Your task to perform on an android device: Search for sushi restaurants on Maps Image 0: 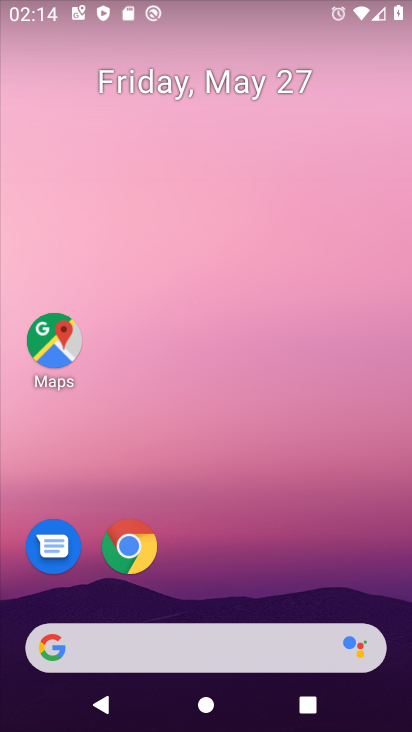
Step 0: drag from (236, 670) to (314, 15)
Your task to perform on an android device: Search for sushi restaurants on Maps Image 1: 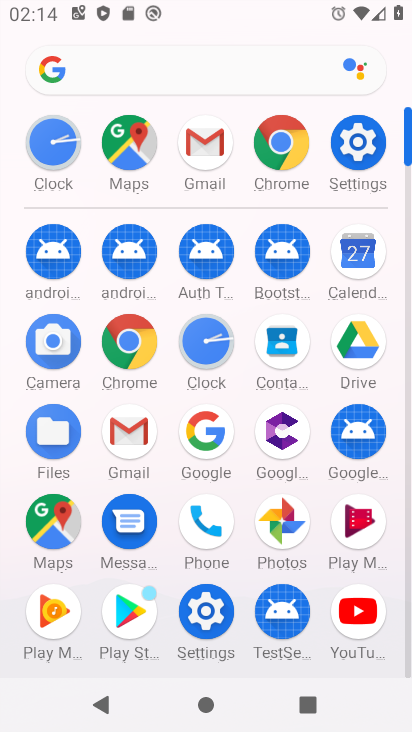
Step 1: click (132, 131)
Your task to perform on an android device: Search for sushi restaurants on Maps Image 2: 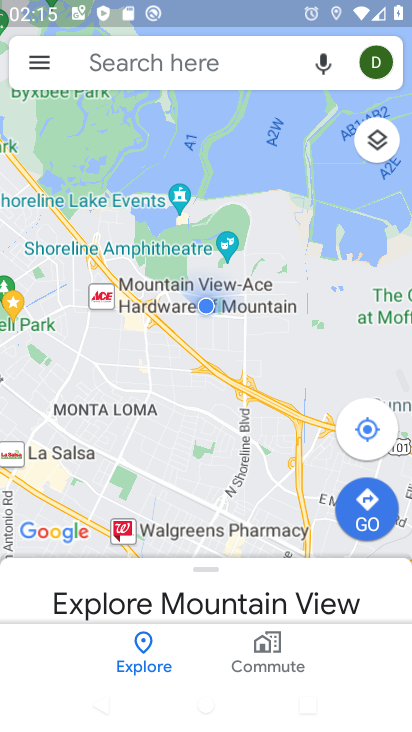
Step 2: click (115, 58)
Your task to perform on an android device: Search for sushi restaurants on Maps Image 3: 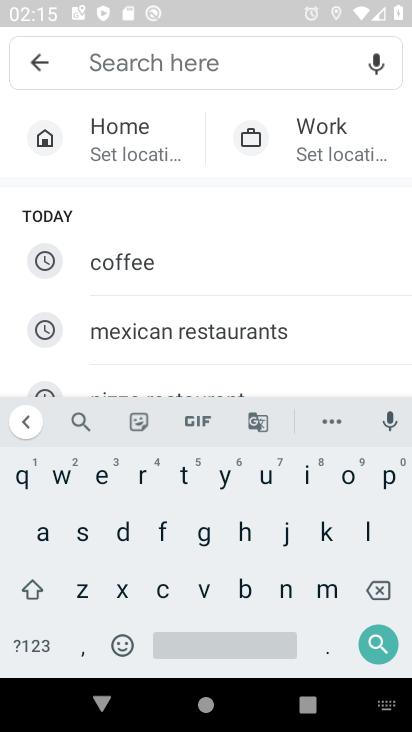
Step 3: click (80, 542)
Your task to perform on an android device: Search for sushi restaurants on Maps Image 4: 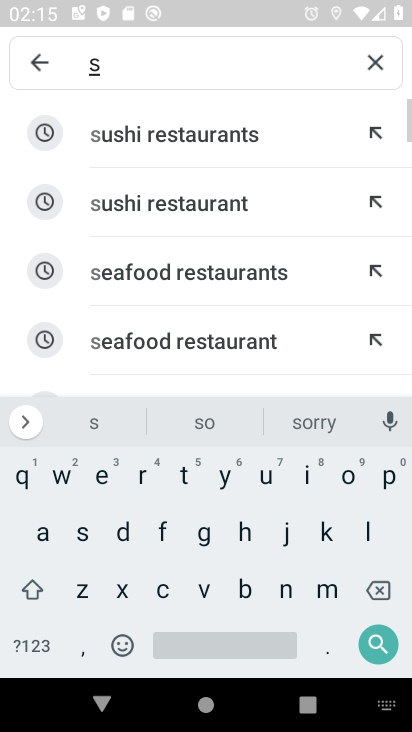
Step 4: click (166, 205)
Your task to perform on an android device: Search for sushi restaurants on Maps Image 5: 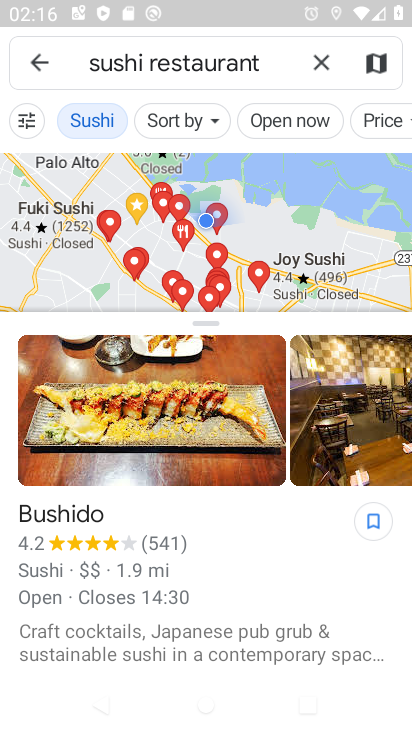
Step 5: click (189, 257)
Your task to perform on an android device: Search for sushi restaurants on Maps Image 6: 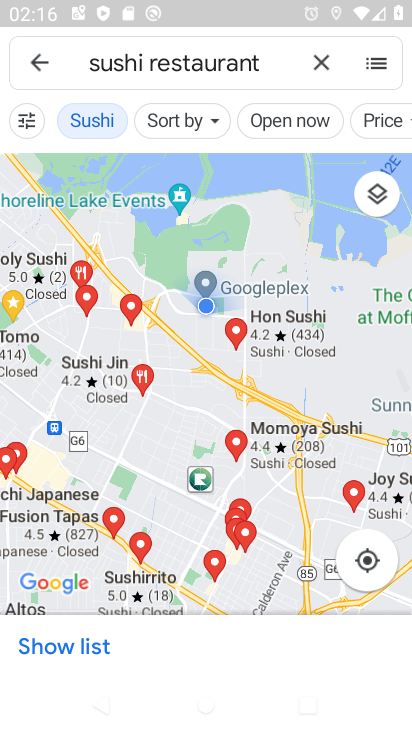
Step 6: task complete